Your task to perform on an android device: open chrome privacy settings Image 0: 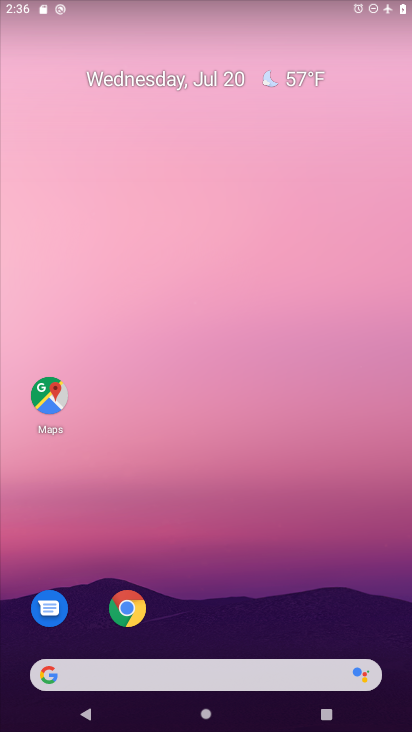
Step 0: click (116, 617)
Your task to perform on an android device: open chrome privacy settings Image 1: 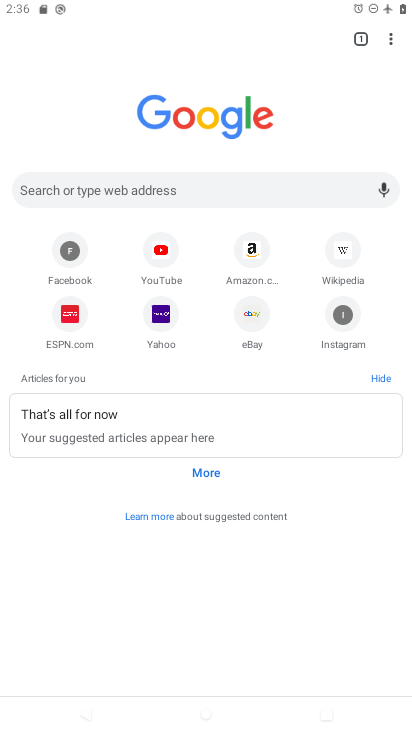
Step 1: click (389, 32)
Your task to perform on an android device: open chrome privacy settings Image 2: 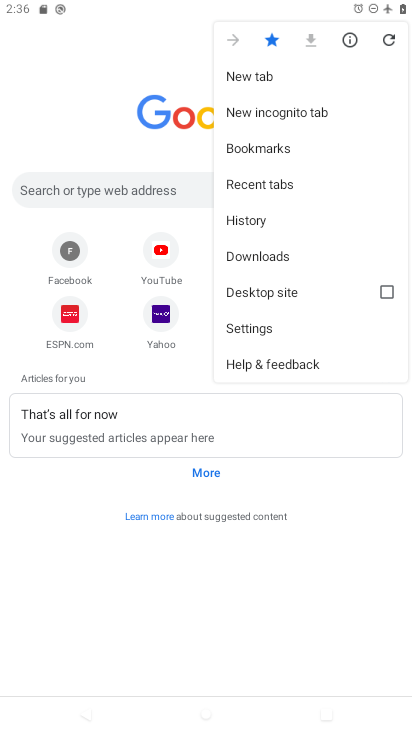
Step 2: click (261, 323)
Your task to perform on an android device: open chrome privacy settings Image 3: 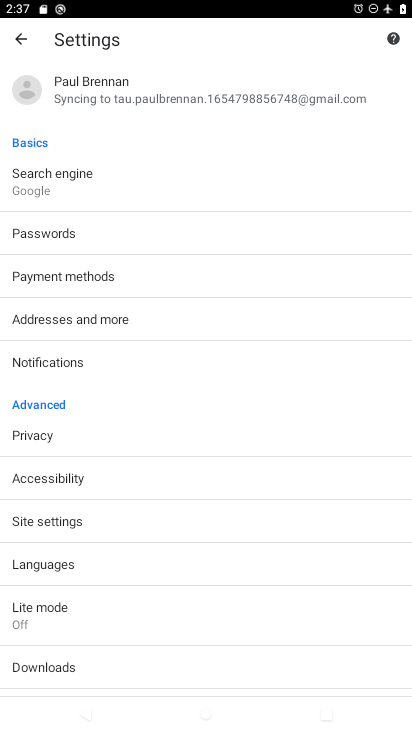
Step 3: click (95, 436)
Your task to perform on an android device: open chrome privacy settings Image 4: 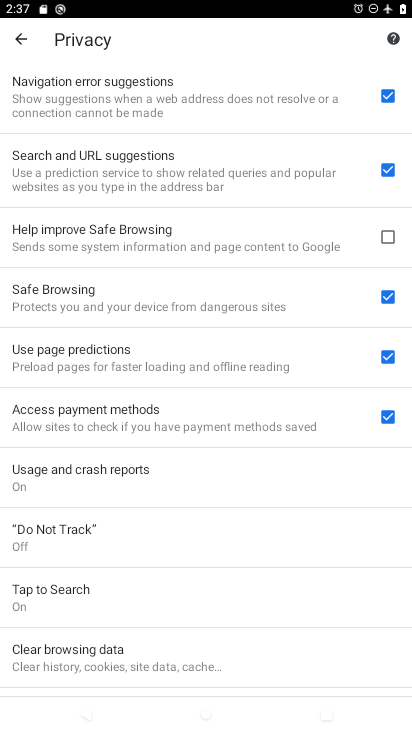
Step 4: task complete